Your task to perform on an android device: change timer sound Image 0: 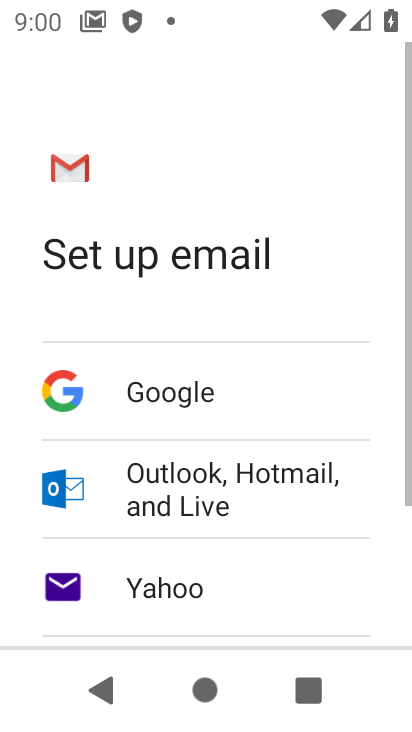
Step 0: press home button
Your task to perform on an android device: change timer sound Image 1: 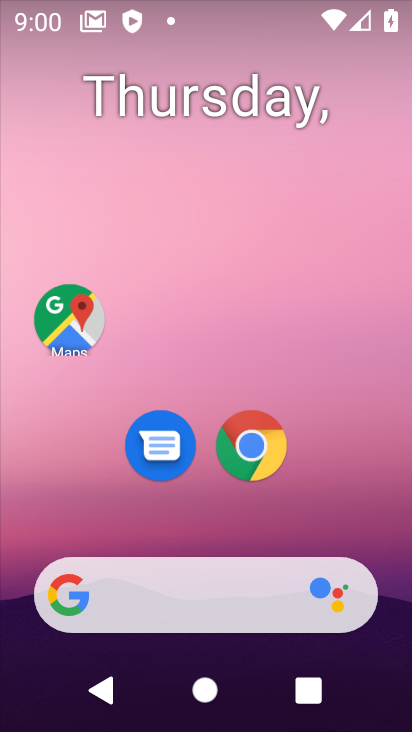
Step 1: drag from (305, 450) to (238, 175)
Your task to perform on an android device: change timer sound Image 2: 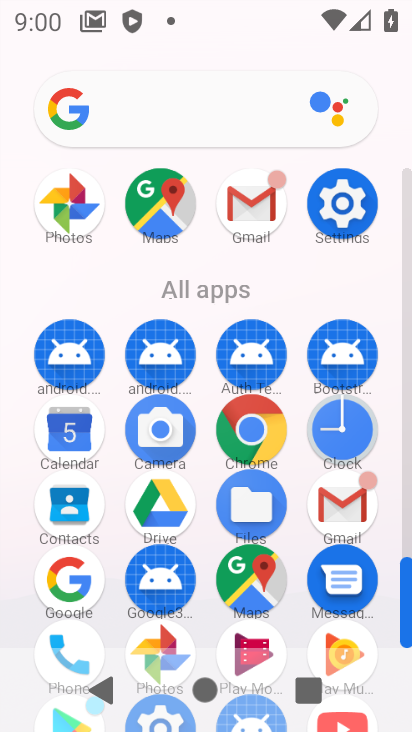
Step 2: click (331, 447)
Your task to perform on an android device: change timer sound Image 3: 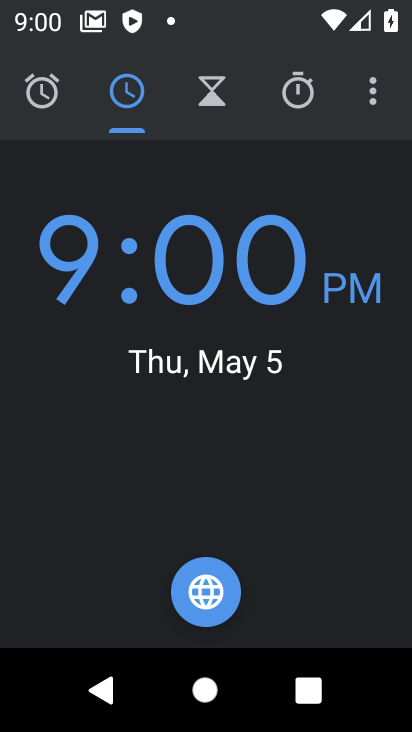
Step 3: click (376, 94)
Your task to perform on an android device: change timer sound Image 4: 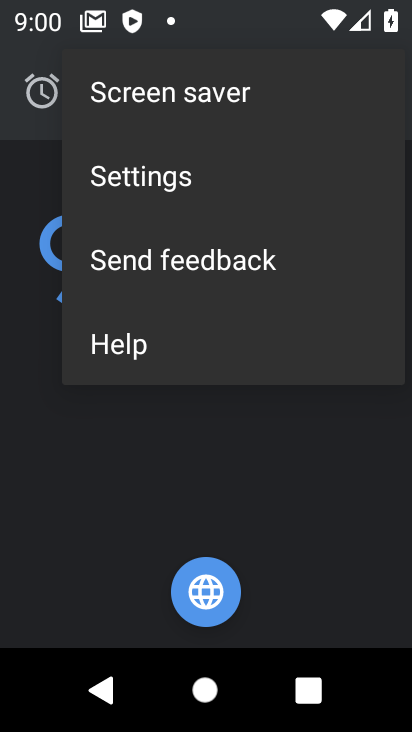
Step 4: click (175, 177)
Your task to perform on an android device: change timer sound Image 5: 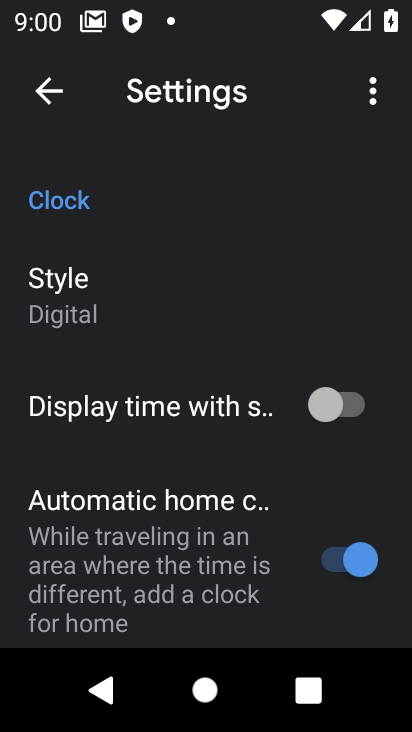
Step 5: drag from (188, 542) to (249, 159)
Your task to perform on an android device: change timer sound Image 6: 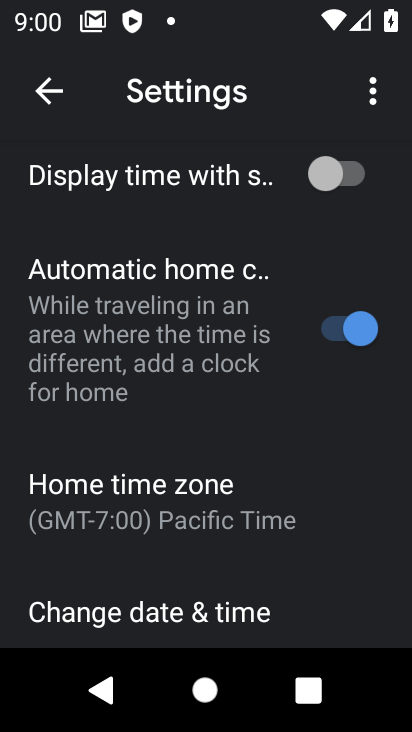
Step 6: drag from (164, 567) to (162, 150)
Your task to perform on an android device: change timer sound Image 7: 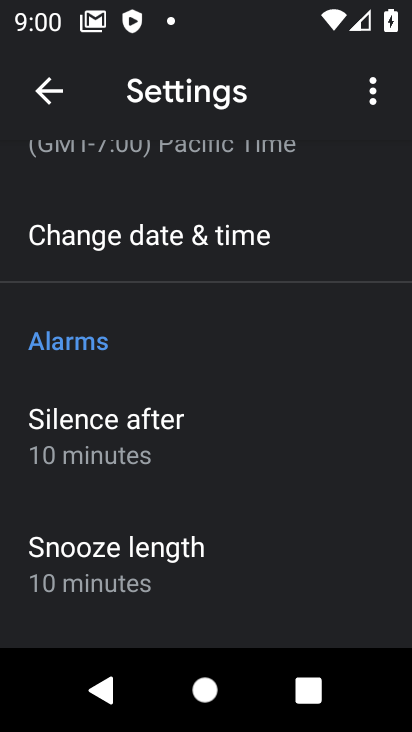
Step 7: drag from (162, 569) to (152, 251)
Your task to perform on an android device: change timer sound Image 8: 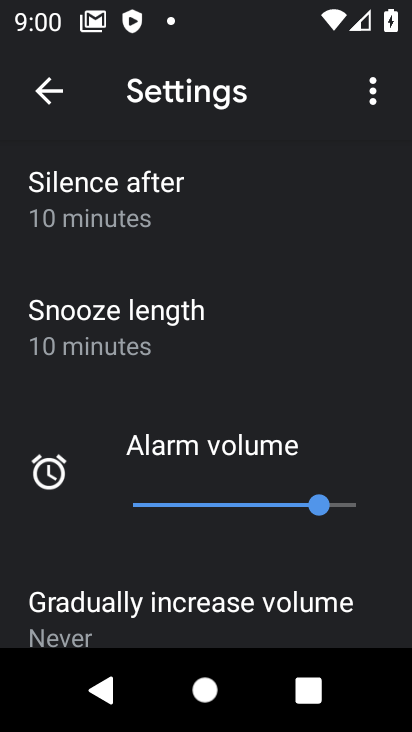
Step 8: drag from (171, 558) to (211, 310)
Your task to perform on an android device: change timer sound Image 9: 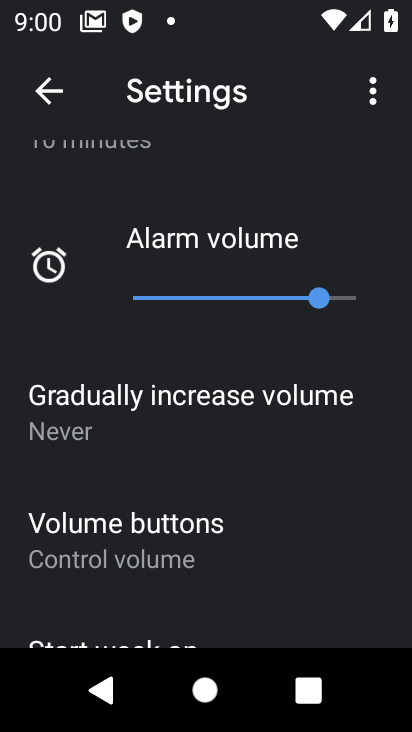
Step 9: drag from (168, 574) to (174, 276)
Your task to perform on an android device: change timer sound Image 10: 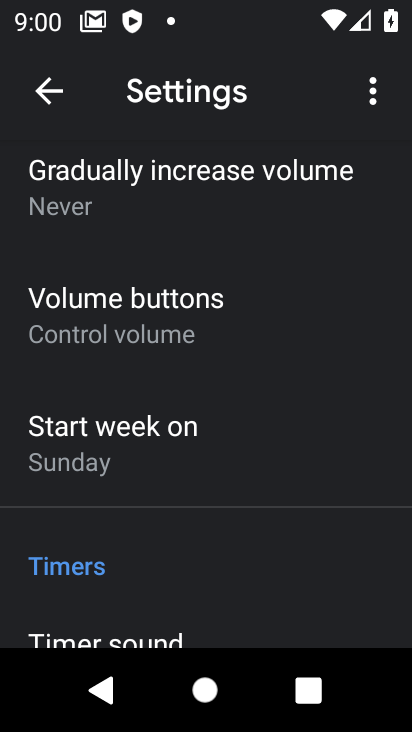
Step 10: drag from (151, 562) to (157, 351)
Your task to perform on an android device: change timer sound Image 11: 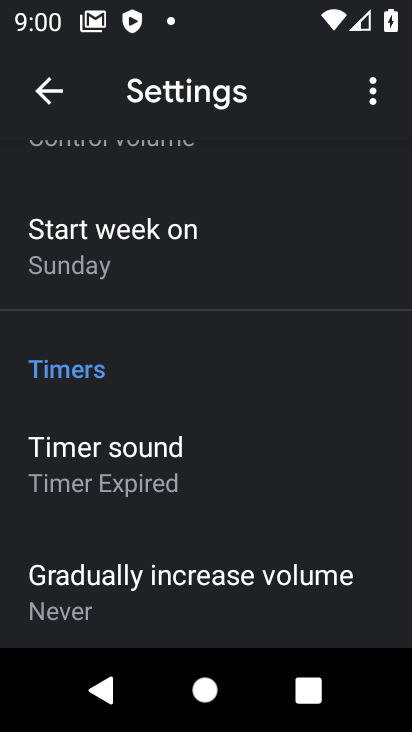
Step 11: click (91, 476)
Your task to perform on an android device: change timer sound Image 12: 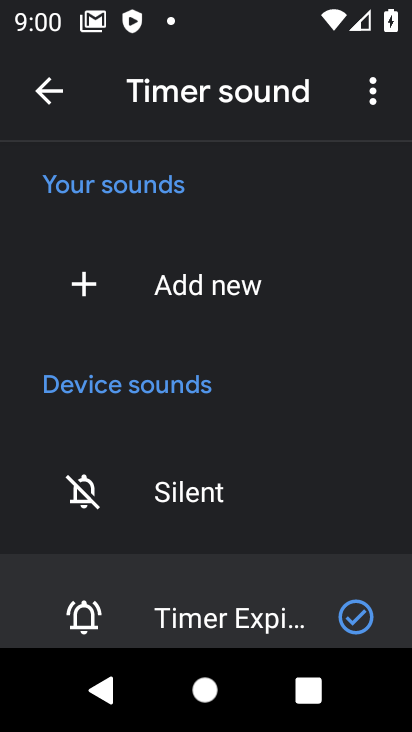
Step 12: drag from (226, 528) to (252, 258)
Your task to perform on an android device: change timer sound Image 13: 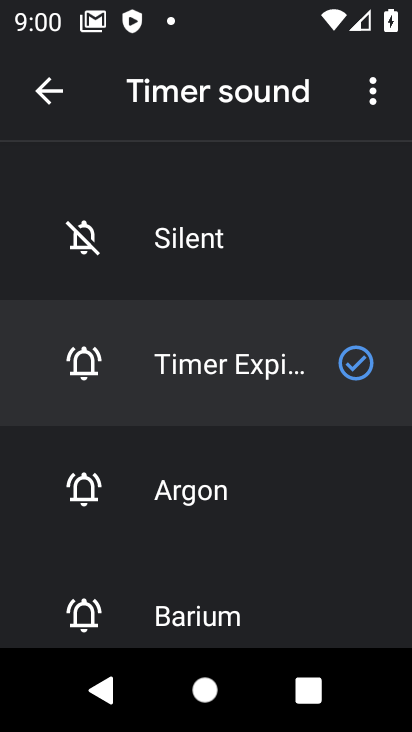
Step 13: click (177, 508)
Your task to perform on an android device: change timer sound Image 14: 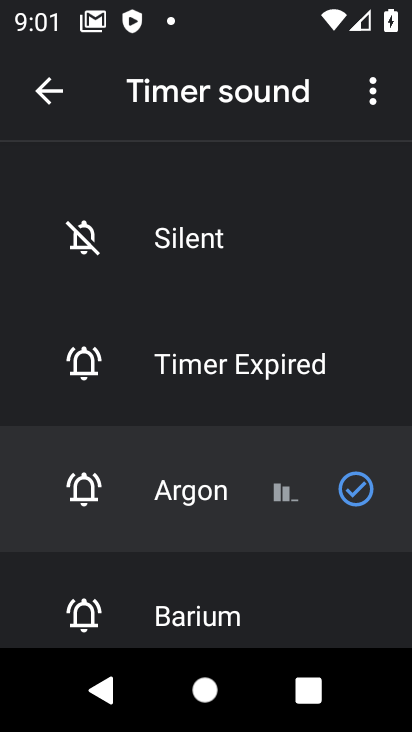
Step 14: task complete